Your task to perform on an android device: check battery use Image 0: 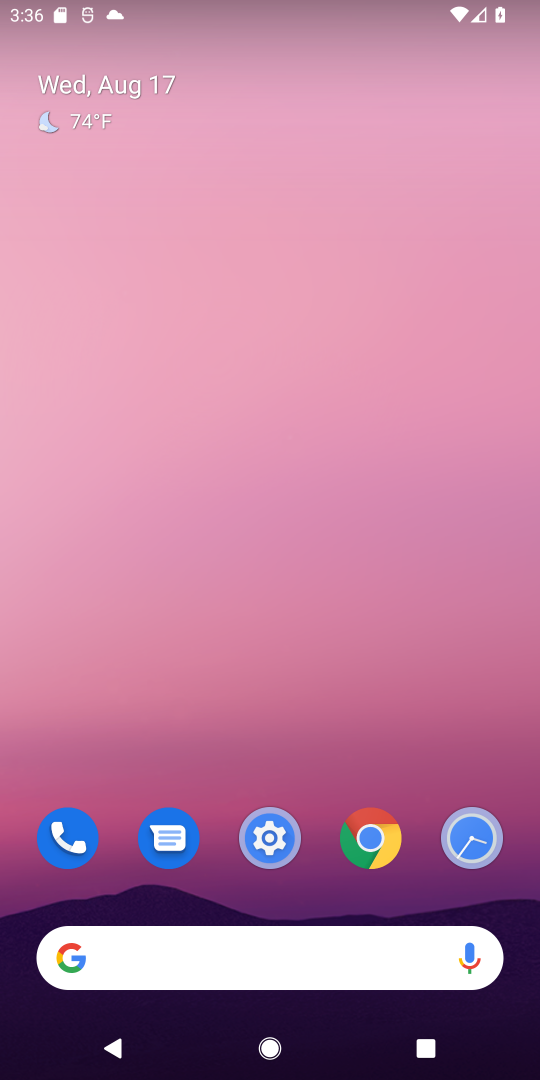
Step 0: drag from (176, 889) to (176, 292)
Your task to perform on an android device: check battery use Image 1: 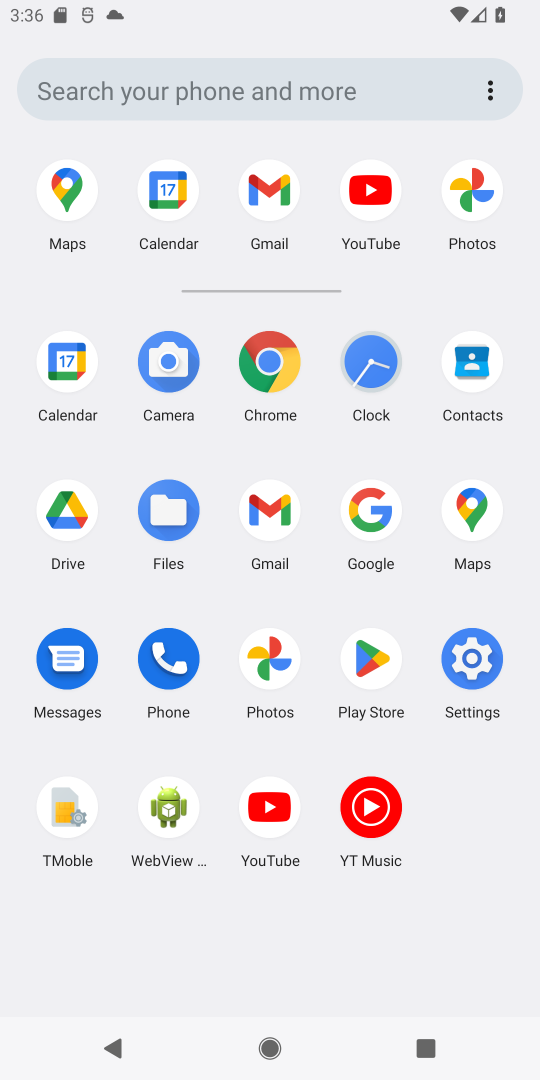
Step 1: click (495, 654)
Your task to perform on an android device: check battery use Image 2: 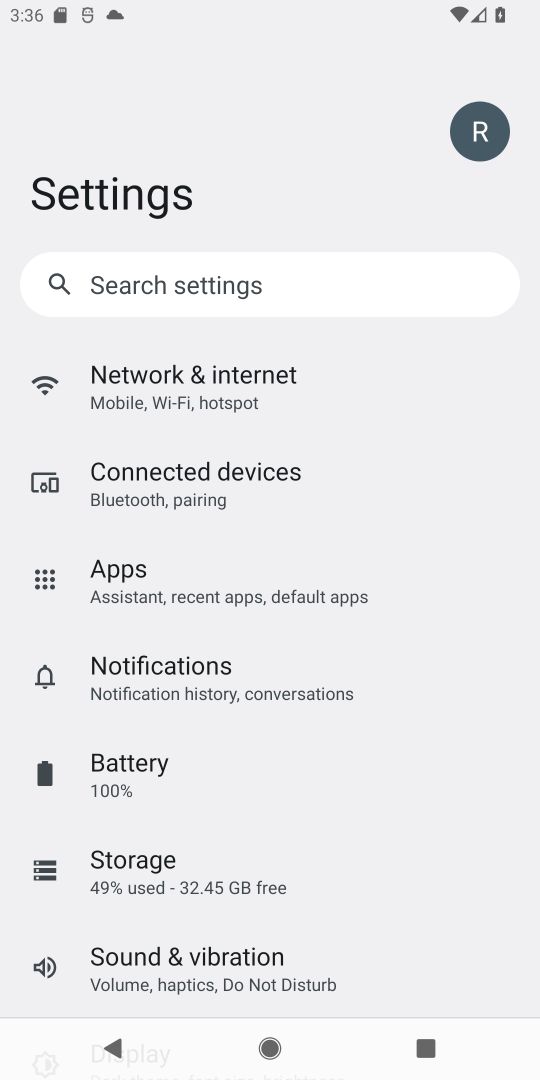
Step 2: click (111, 794)
Your task to perform on an android device: check battery use Image 3: 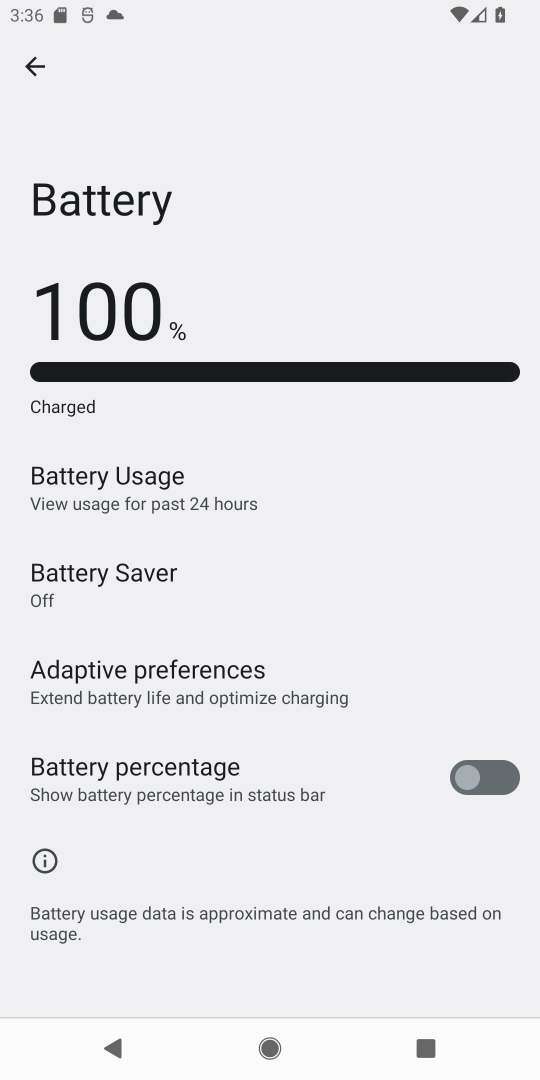
Step 3: click (111, 475)
Your task to perform on an android device: check battery use Image 4: 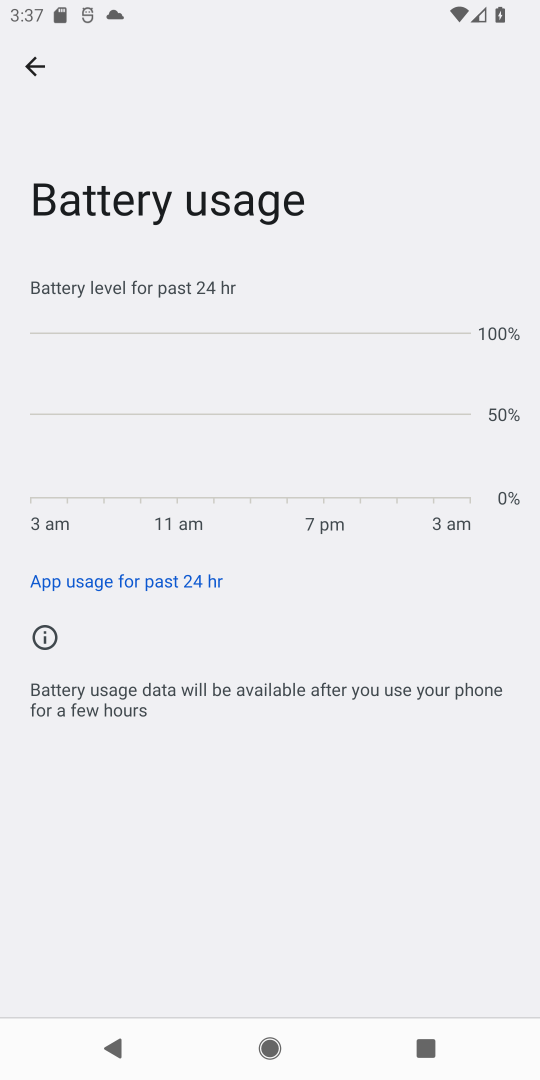
Step 4: task complete